Your task to perform on an android device: Clear the cart on newegg. Add razer blade to the cart on newegg, then select checkout. Image 0: 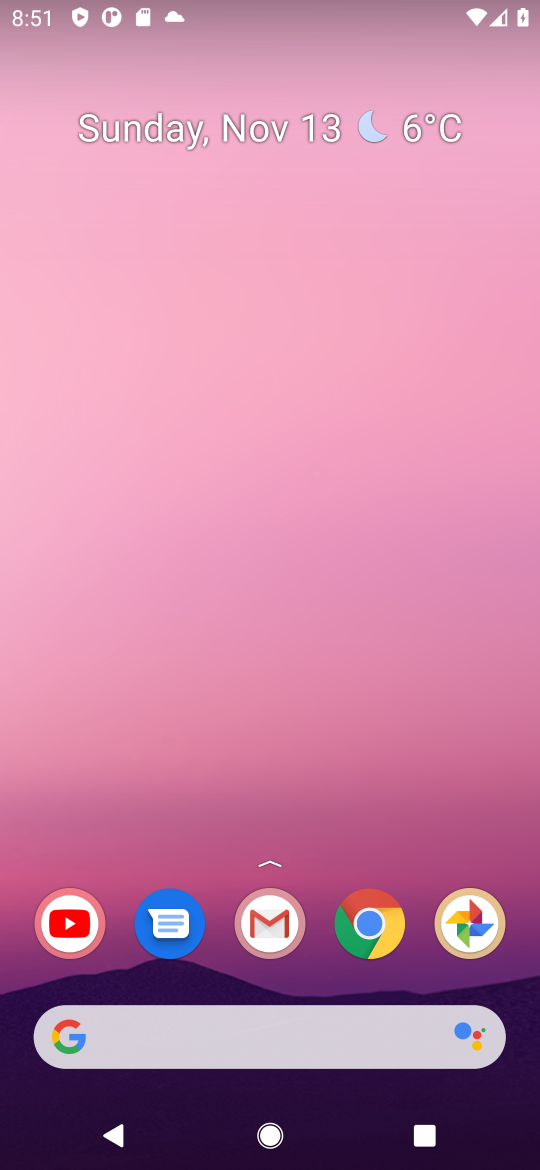
Step 0: click (367, 933)
Your task to perform on an android device: Clear the cart on newegg. Add razer blade to the cart on newegg, then select checkout. Image 1: 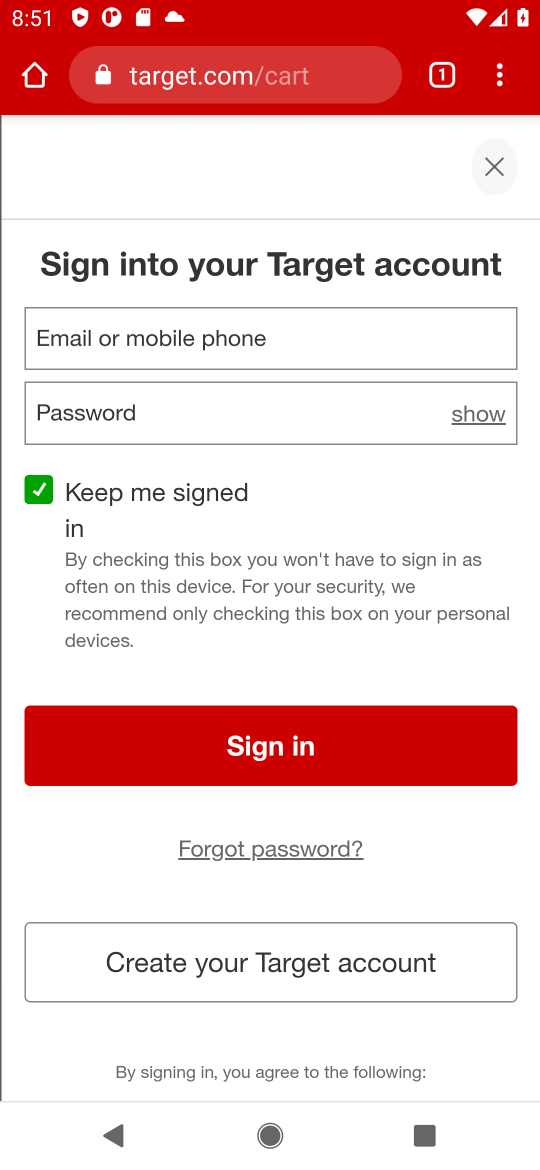
Step 1: click (205, 81)
Your task to perform on an android device: Clear the cart on newegg. Add razer blade to the cart on newegg, then select checkout. Image 2: 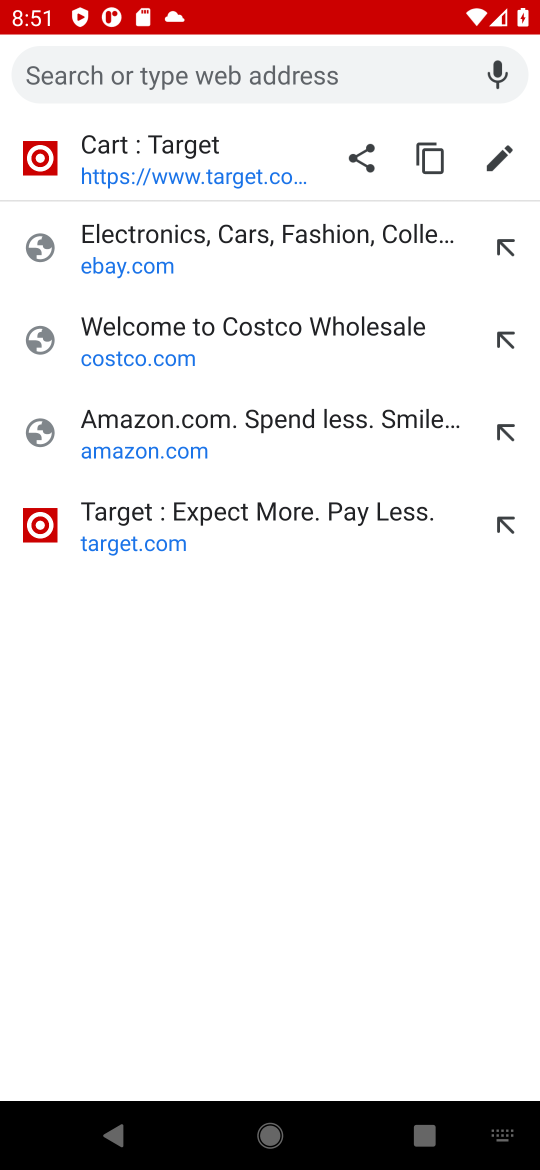
Step 2: type "newegg"
Your task to perform on an android device: Clear the cart on newegg. Add razer blade to the cart on newegg, then select checkout. Image 3: 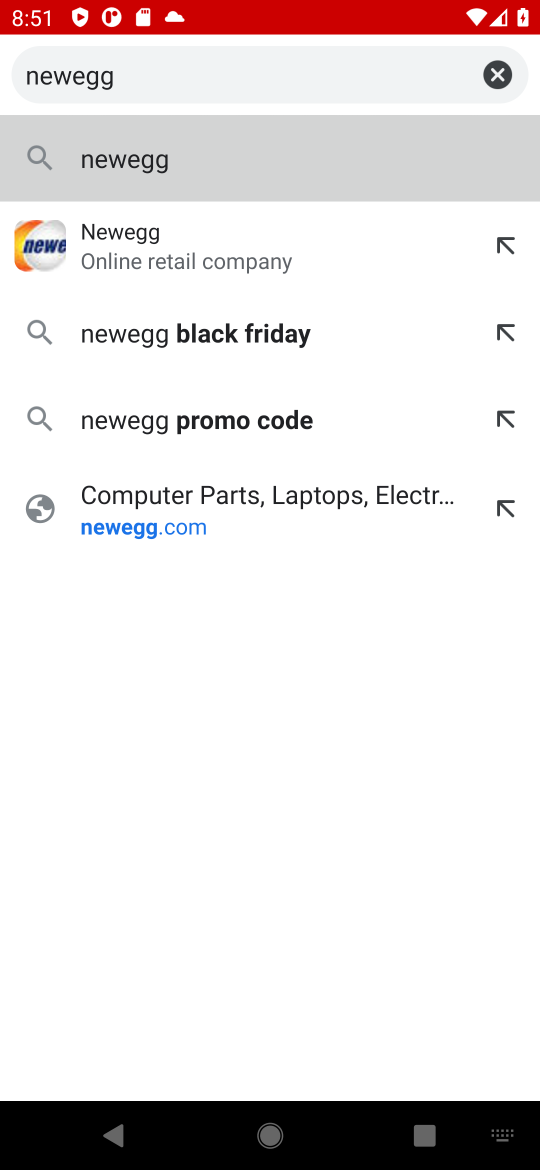
Step 3: click (263, 512)
Your task to perform on an android device: Clear the cart on newegg. Add razer blade to the cart on newegg, then select checkout. Image 4: 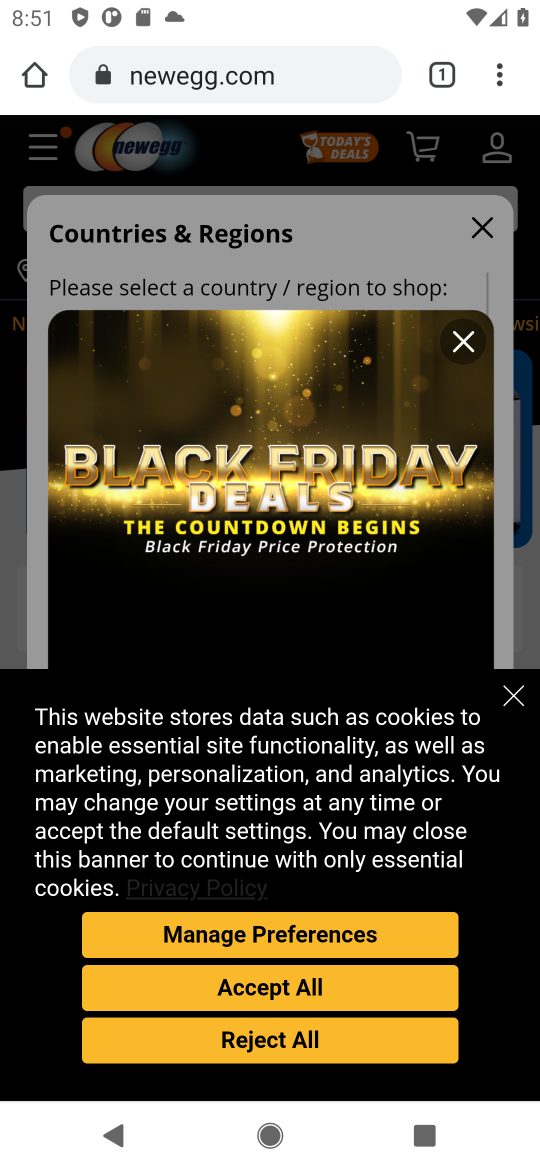
Step 4: click (267, 992)
Your task to perform on an android device: Clear the cart on newegg. Add razer blade to the cart on newegg, then select checkout. Image 5: 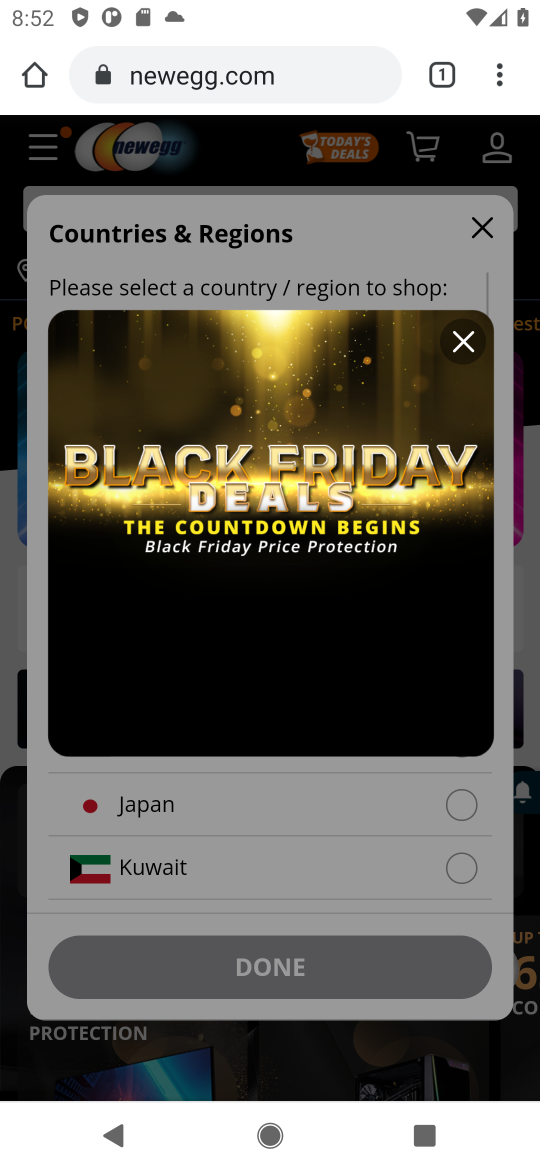
Step 5: click (459, 356)
Your task to perform on an android device: Clear the cart on newegg. Add razer blade to the cart on newegg, then select checkout. Image 6: 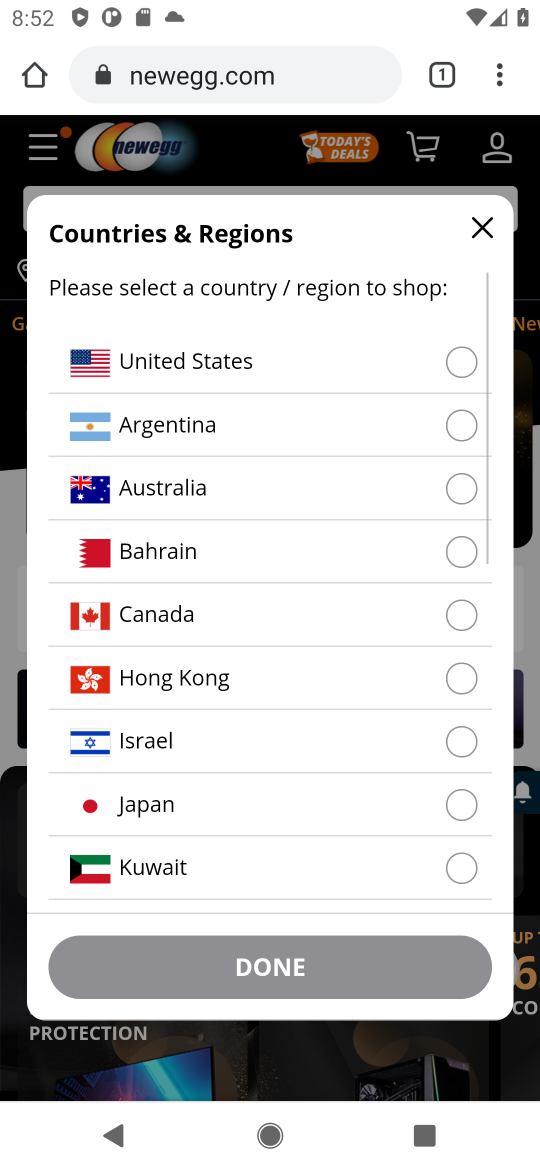
Step 6: click (238, 363)
Your task to perform on an android device: Clear the cart on newegg. Add razer blade to the cart on newegg, then select checkout. Image 7: 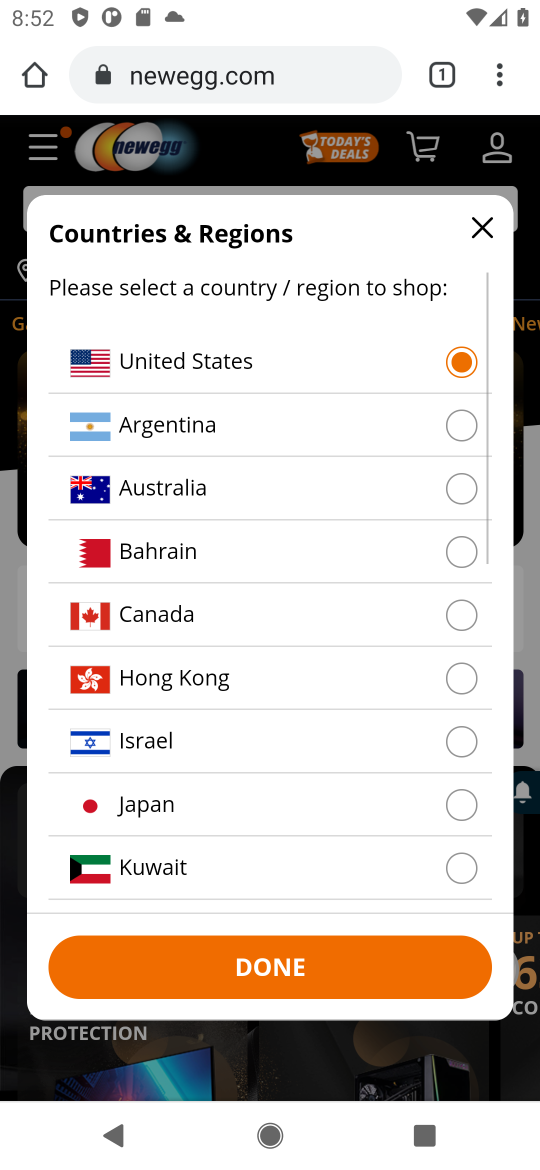
Step 7: click (307, 971)
Your task to perform on an android device: Clear the cart on newegg. Add razer blade to the cart on newegg, then select checkout. Image 8: 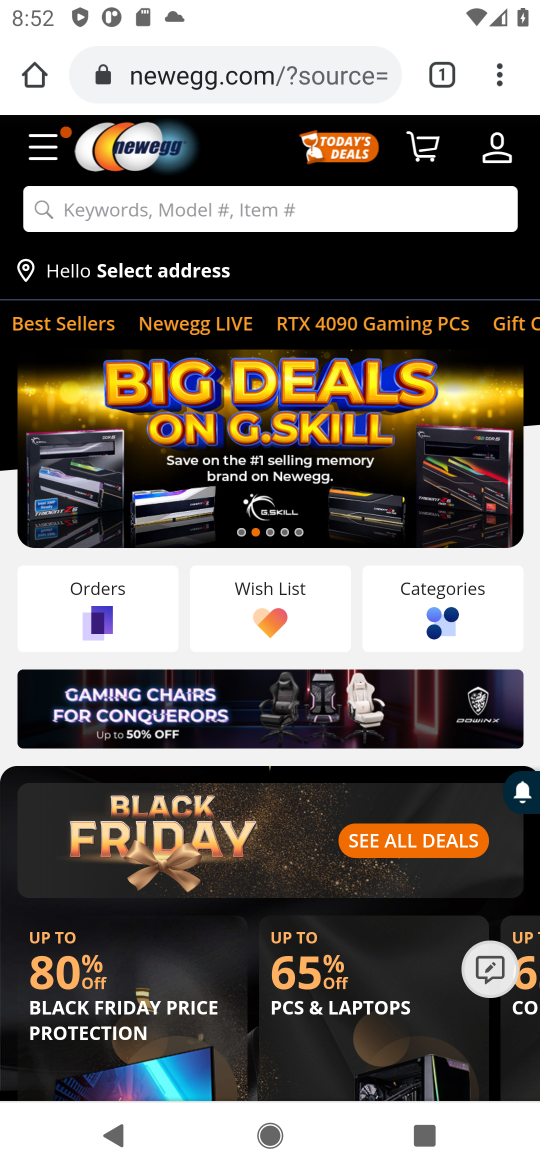
Step 8: click (427, 159)
Your task to perform on an android device: Clear the cart on newegg. Add razer blade to the cart on newegg, then select checkout. Image 9: 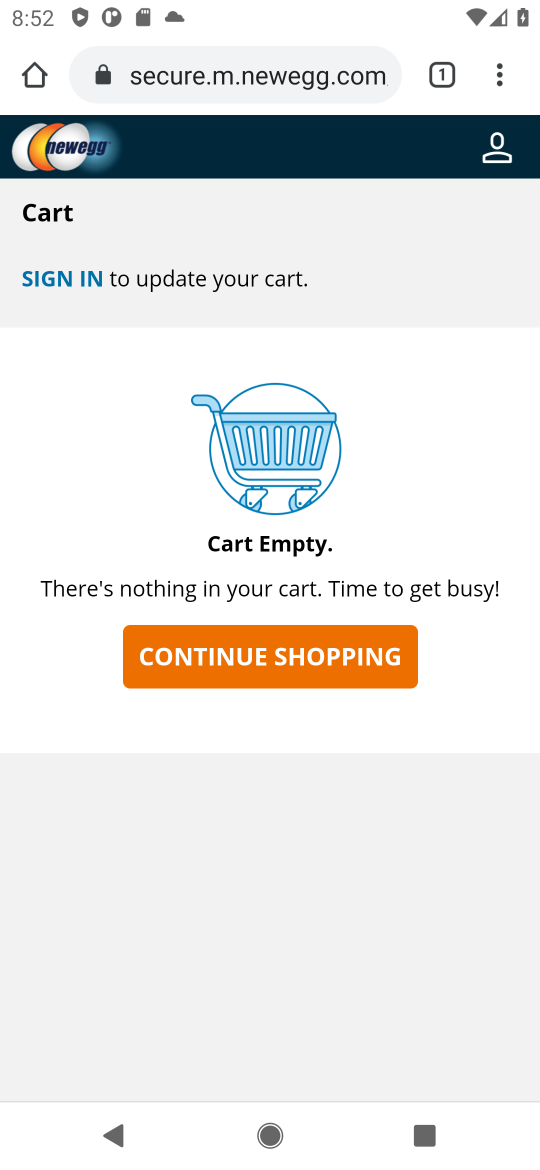
Step 9: click (68, 163)
Your task to perform on an android device: Clear the cart on newegg. Add razer blade to the cart on newegg, then select checkout. Image 10: 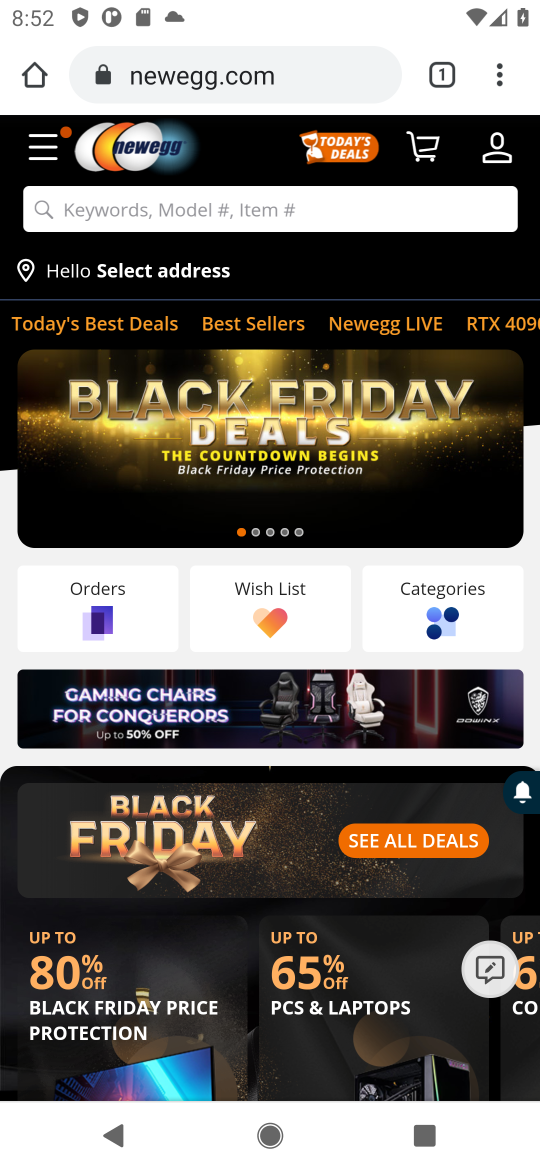
Step 10: click (284, 217)
Your task to perform on an android device: Clear the cart on newegg. Add razer blade to the cart on newegg, then select checkout. Image 11: 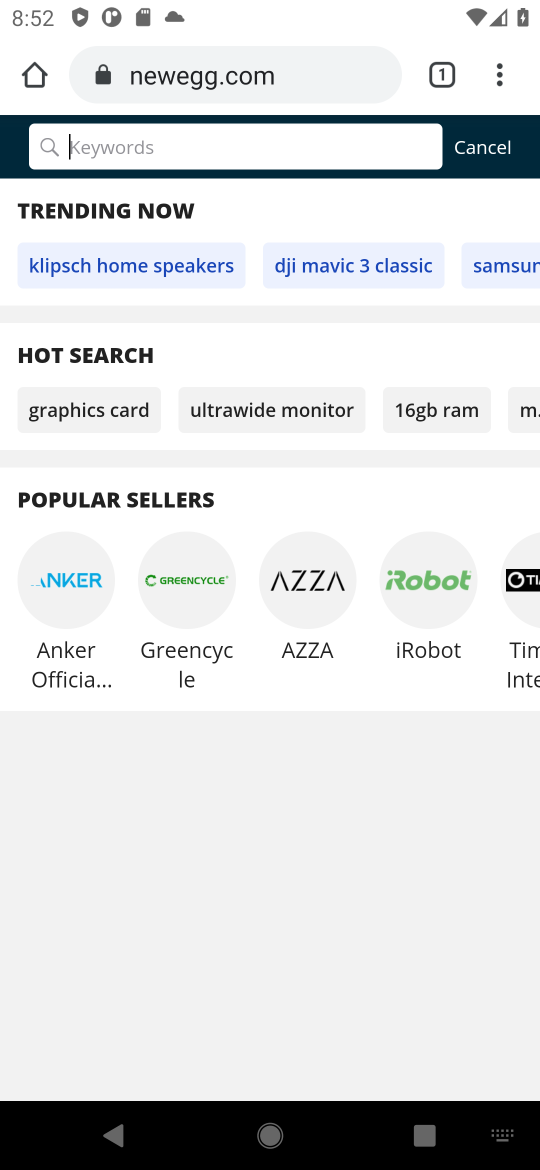
Step 11: type "razer blade"
Your task to perform on an android device: Clear the cart on newegg. Add razer blade to the cart on newegg, then select checkout. Image 12: 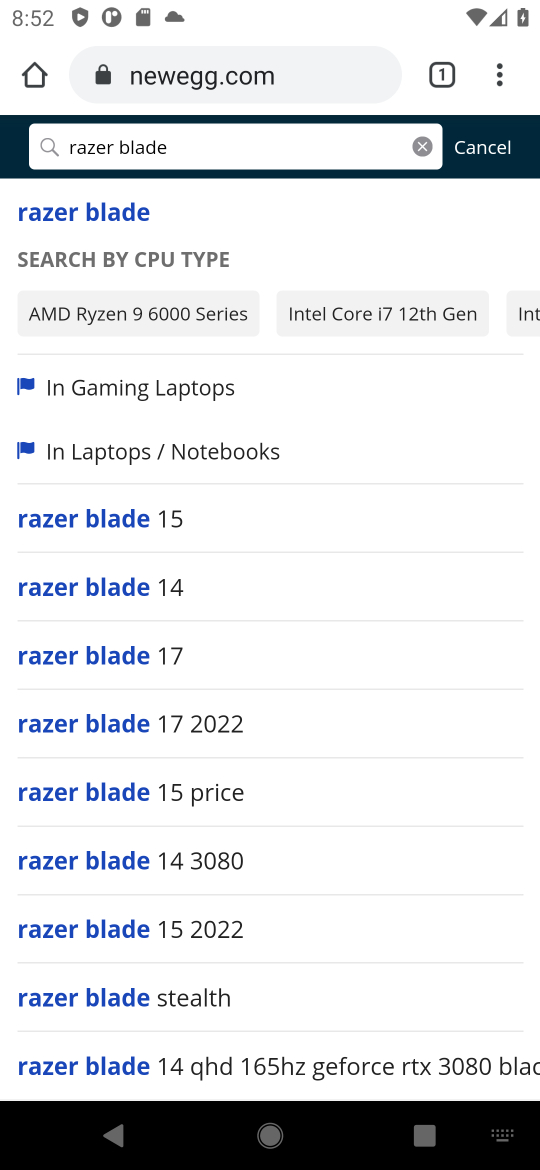
Step 12: press enter
Your task to perform on an android device: Clear the cart on newegg. Add razer blade to the cart on newegg, then select checkout. Image 13: 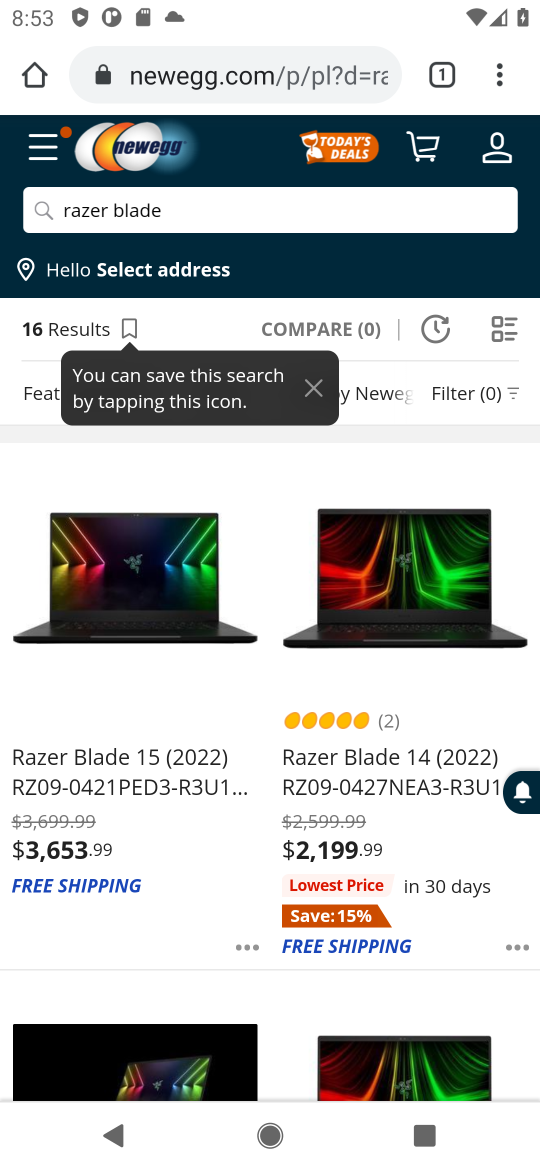
Step 13: click (161, 663)
Your task to perform on an android device: Clear the cart on newegg. Add razer blade to the cart on newegg, then select checkout. Image 14: 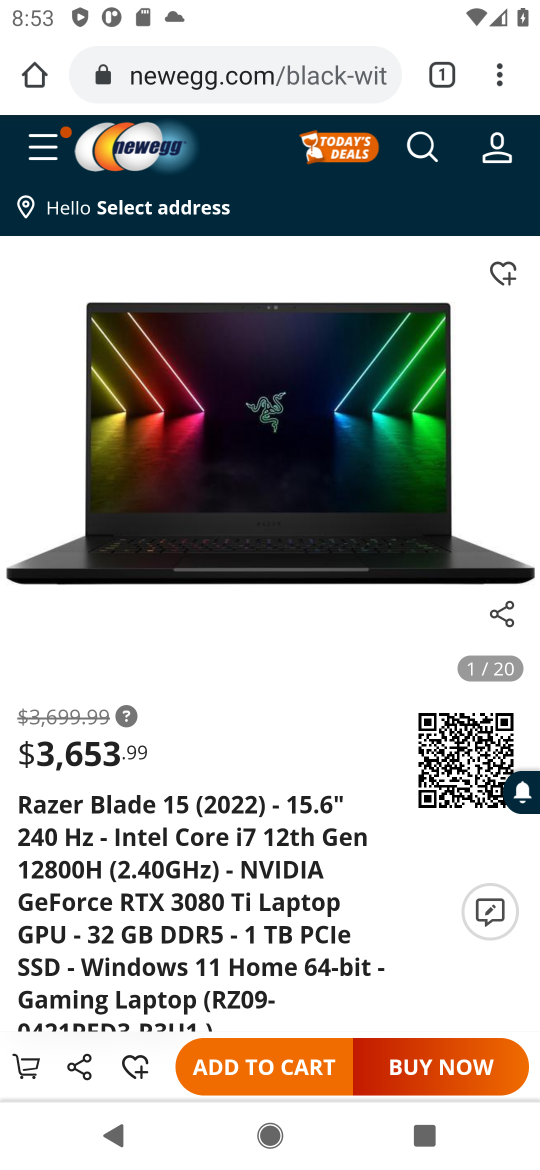
Step 14: click (261, 1062)
Your task to perform on an android device: Clear the cart on newegg. Add razer blade to the cart on newegg, then select checkout. Image 15: 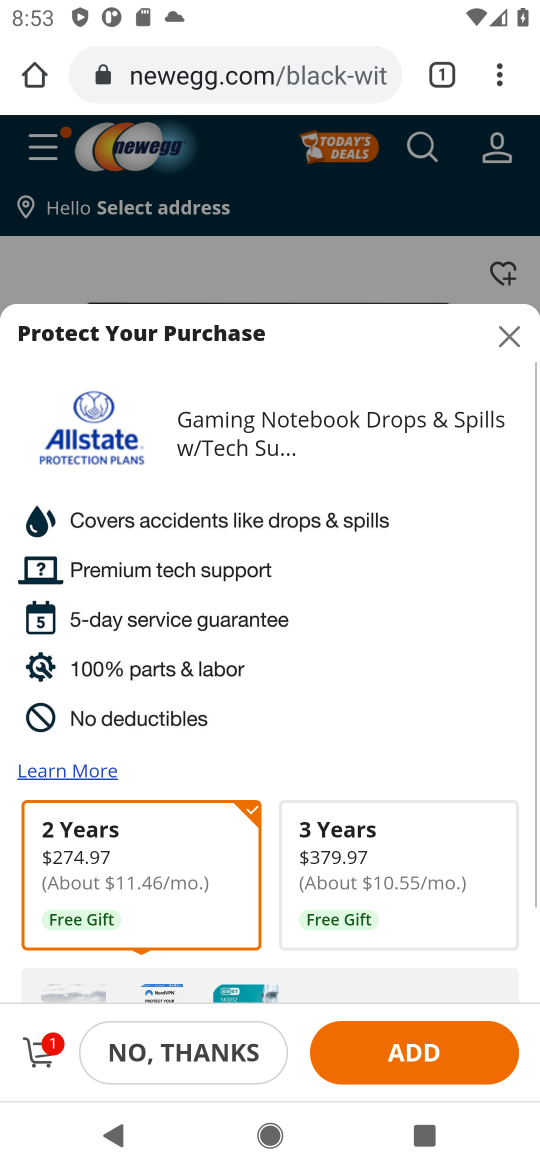
Step 15: click (395, 1063)
Your task to perform on an android device: Clear the cart on newegg. Add razer blade to the cart on newegg, then select checkout. Image 16: 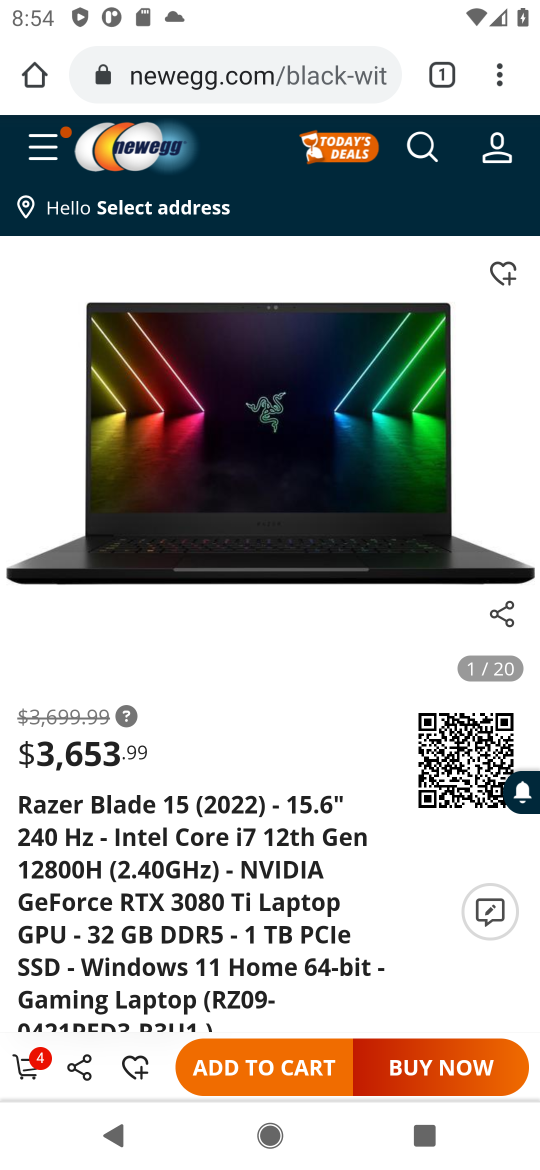
Step 16: drag from (232, 949) to (284, 565)
Your task to perform on an android device: Clear the cart on newegg. Add razer blade to the cart on newegg, then select checkout. Image 17: 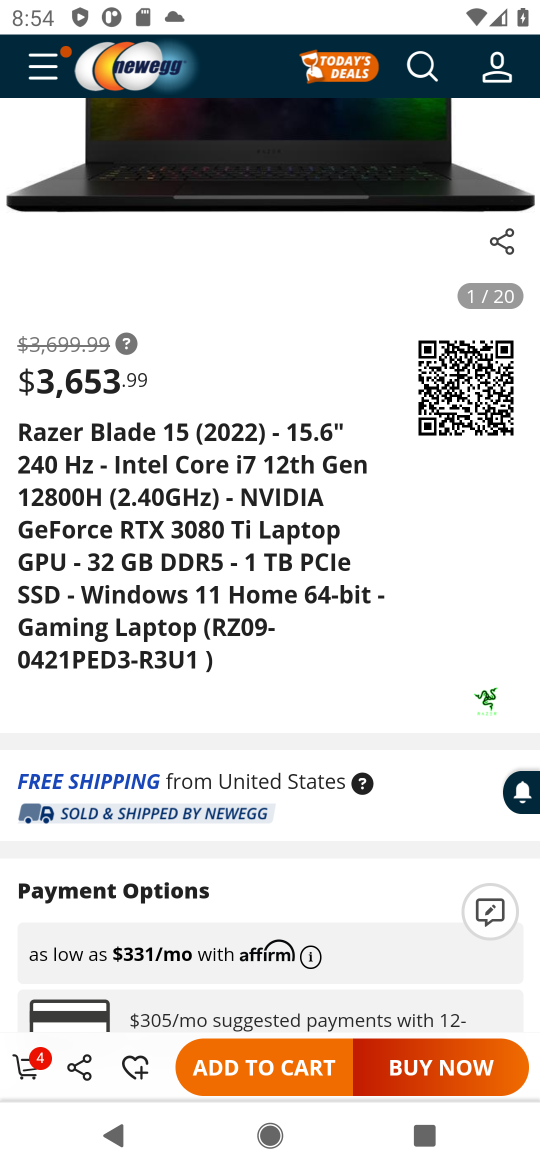
Step 17: click (297, 1074)
Your task to perform on an android device: Clear the cart on newegg. Add razer blade to the cart on newegg, then select checkout. Image 18: 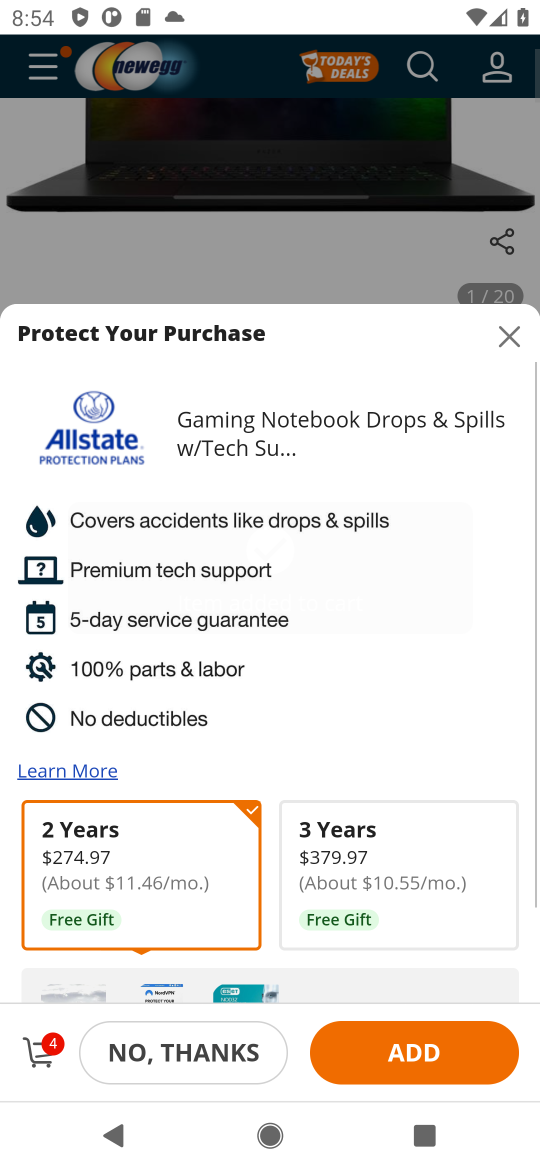
Step 18: click (223, 1057)
Your task to perform on an android device: Clear the cart on newegg. Add razer blade to the cart on newegg, then select checkout. Image 19: 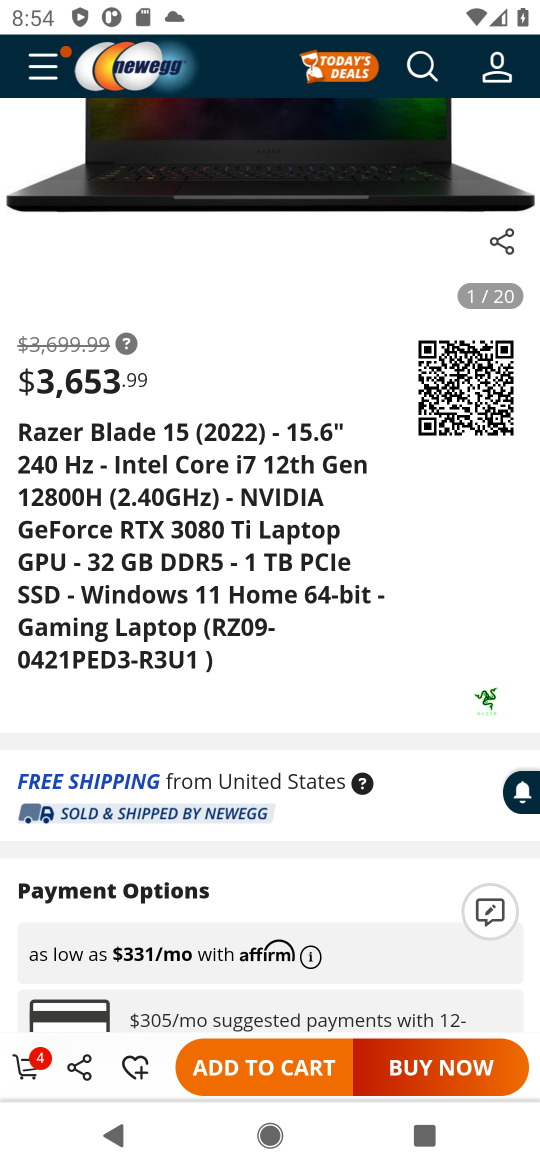
Step 19: click (31, 1074)
Your task to perform on an android device: Clear the cart on newegg. Add razer blade to the cart on newegg, then select checkout. Image 20: 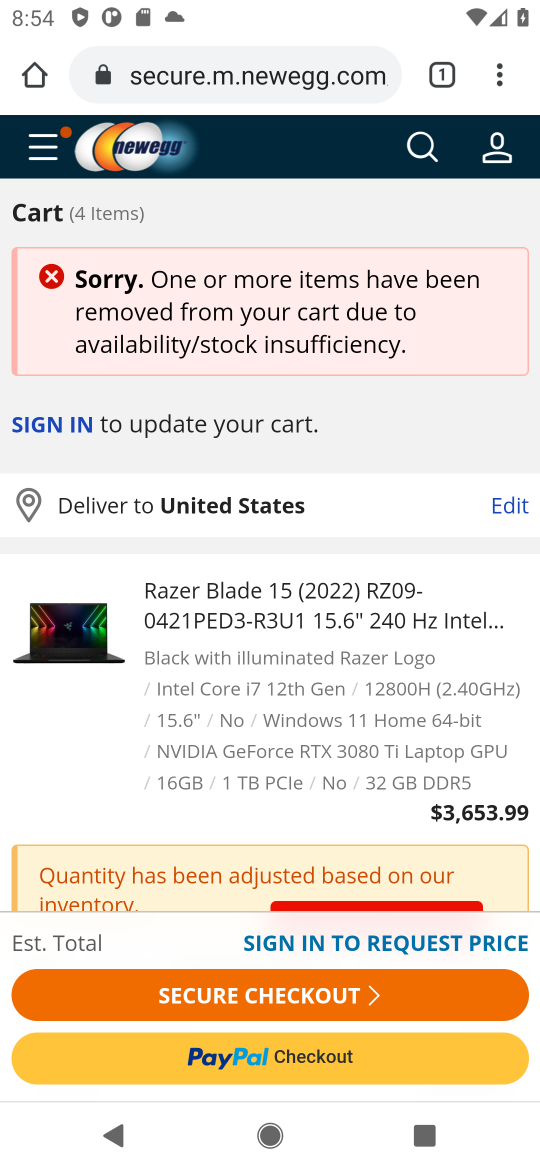
Step 20: click (273, 994)
Your task to perform on an android device: Clear the cart on newegg. Add razer blade to the cart on newegg, then select checkout. Image 21: 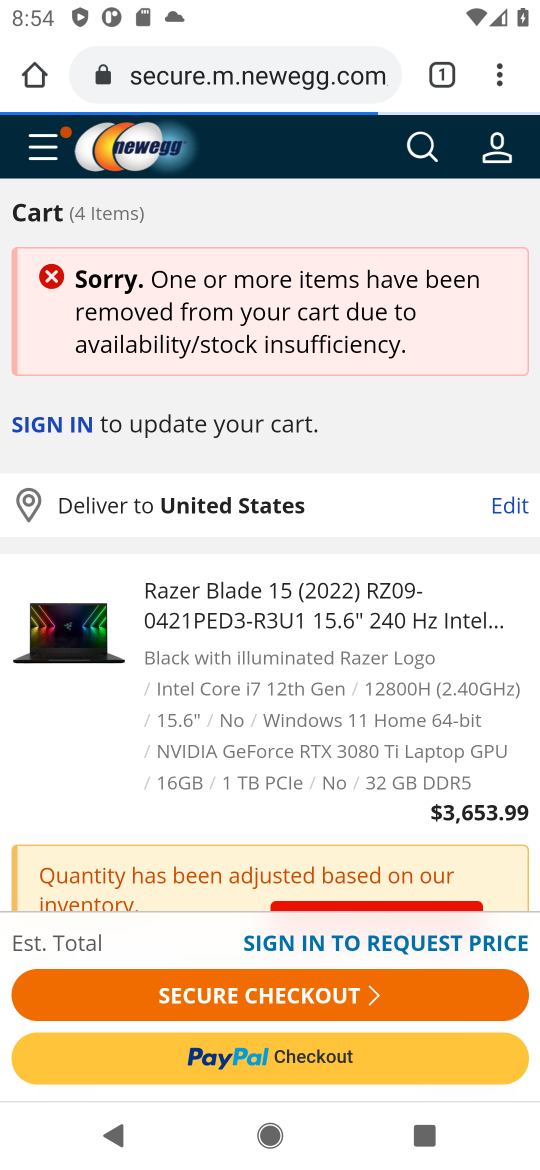
Step 21: task complete